Your task to perform on an android device: delete the emails in spam in the gmail app Image 0: 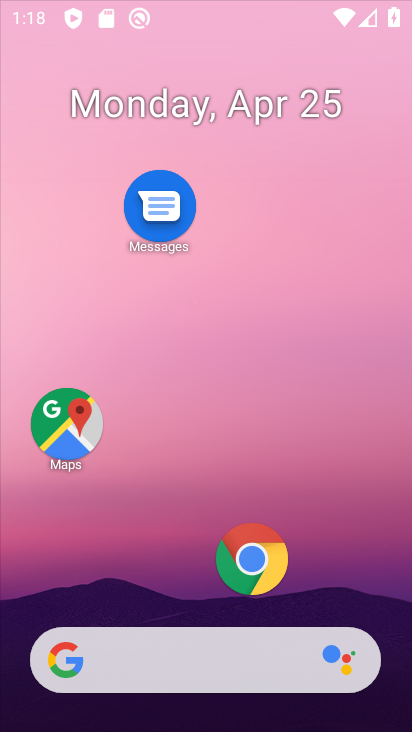
Step 0: drag from (138, 260) to (130, 72)
Your task to perform on an android device: delete the emails in spam in the gmail app Image 1: 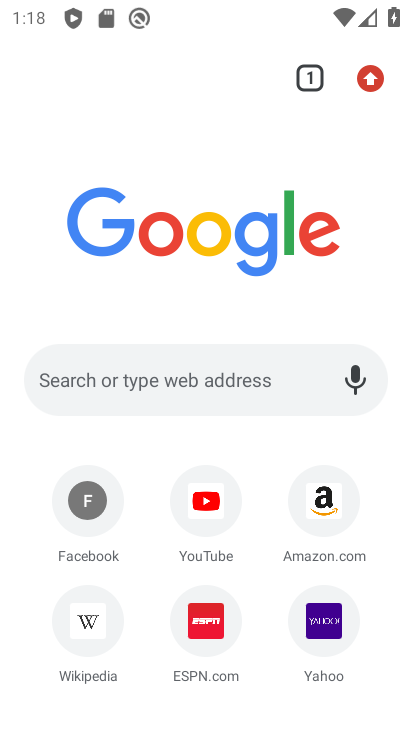
Step 1: press home button
Your task to perform on an android device: delete the emails in spam in the gmail app Image 2: 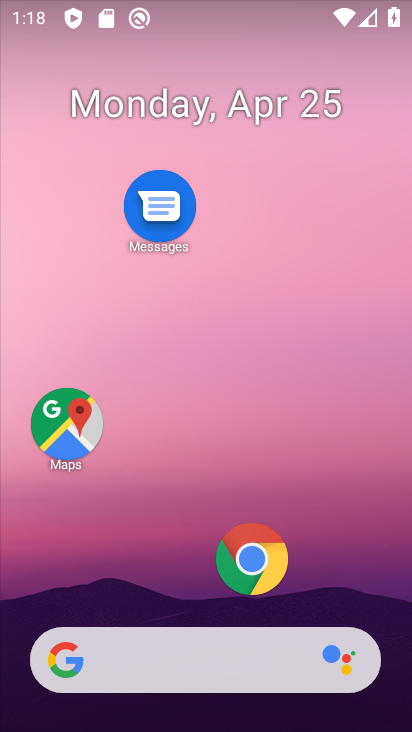
Step 2: drag from (199, 601) to (333, 152)
Your task to perform on an android device: delete the emails in spam in the gmail app Image 3: 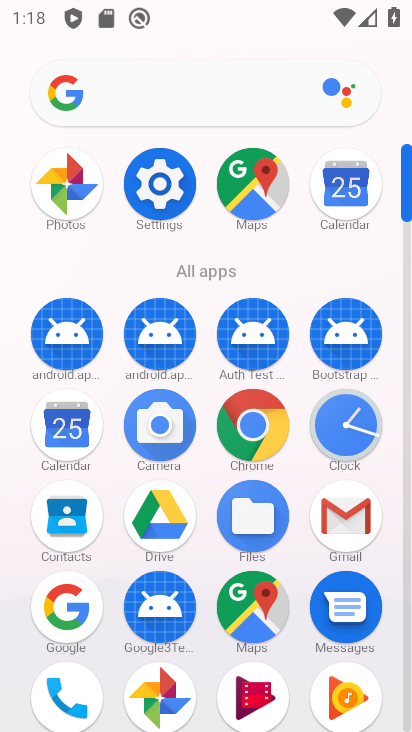
Step 3: click (332, 516)
Your task to perform on an android device: delete the emails in spam in the gmail app Image 4: 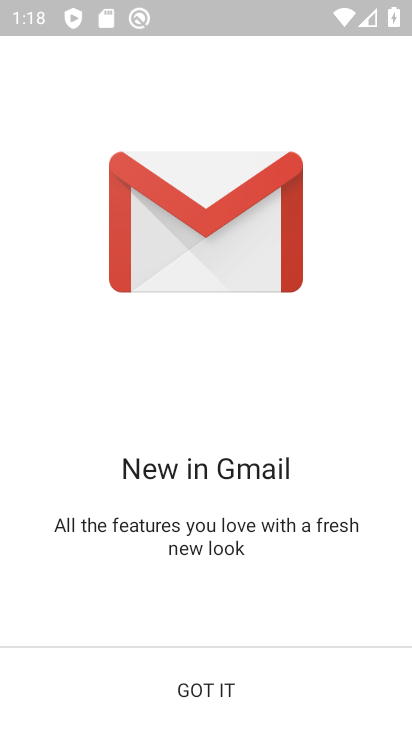
Step 4: click (207, 683)
Your task to perform on an android device: delete the emails in spam in the gmail app Image 5: 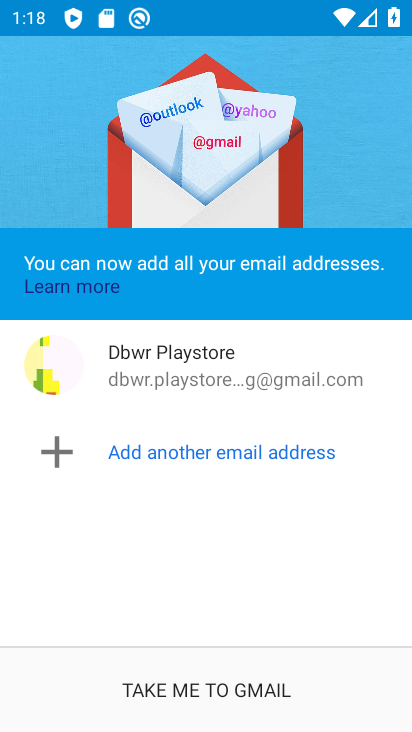
Step 5: click (199, 703)
Your task to perform on an android device: delete the emails in spam in the gmail app Image 6: 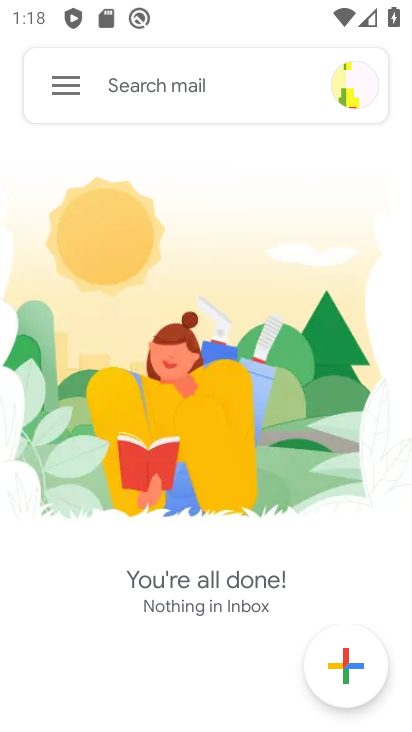
Step 6: click (64, 80)
Your task to perform on an android device: delete the emails in spam in the gmail app Image 7: 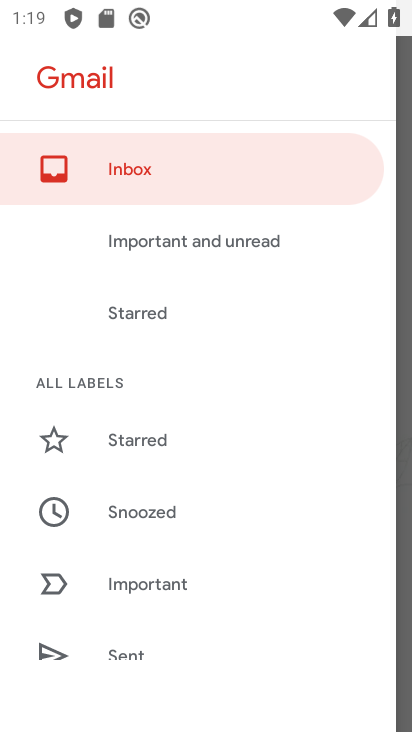
Step 7: drag from (214, 599) to (235, 211)
Your task to perform on an android device: delete the emails in spam in the gmail app Image 8: 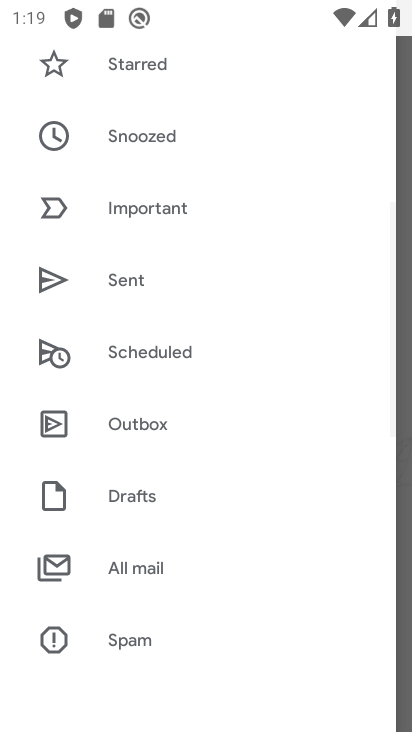
Step 8: click (152, 636)
Your task to perform on an android device: delete the emails in spam in the gmail app Image 9: 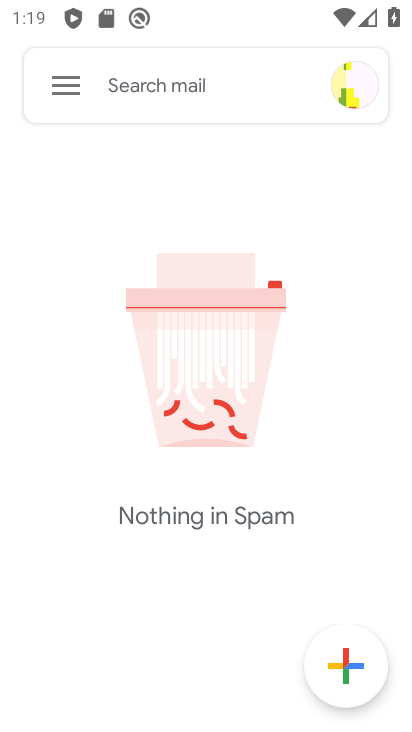
Step 9: task complete